Your task to perform on an android device: Open Amazon Image 0: 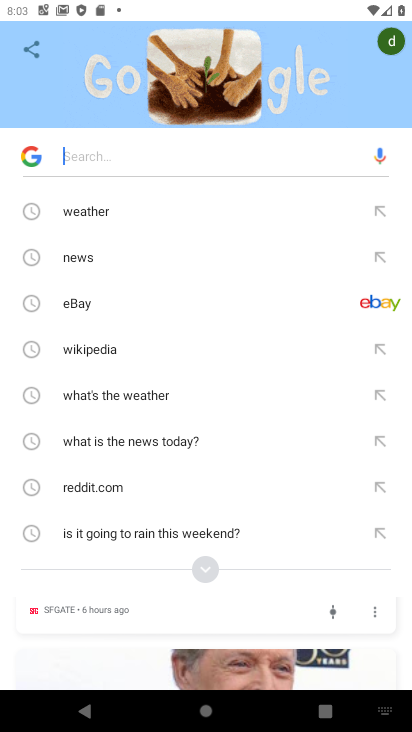
Step 0: press home button
Your task to perform on an android device: Open Amazon Image 1: 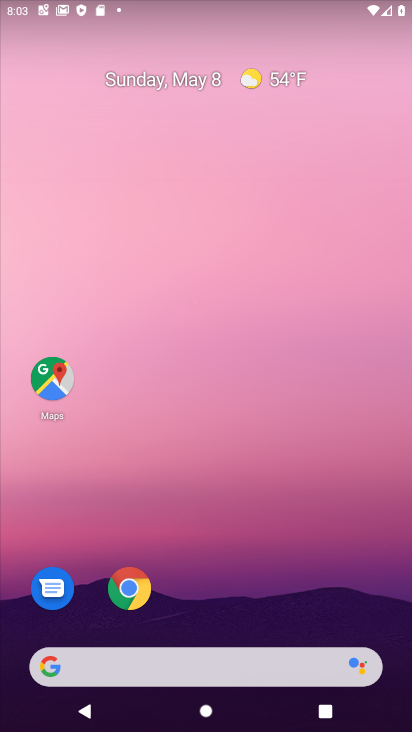
Step 1: click (125, 594)
Your task to perform on an android device: Open Amazon Image 2: 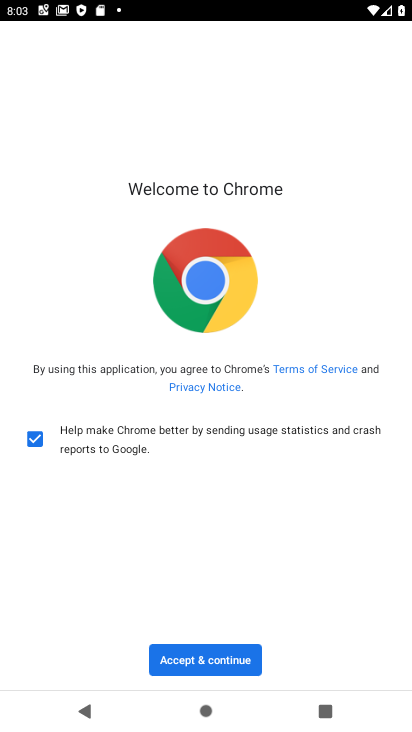
Step 2: click (190, 652)
Your task to perform on an android device: Open Amazon Image 3: 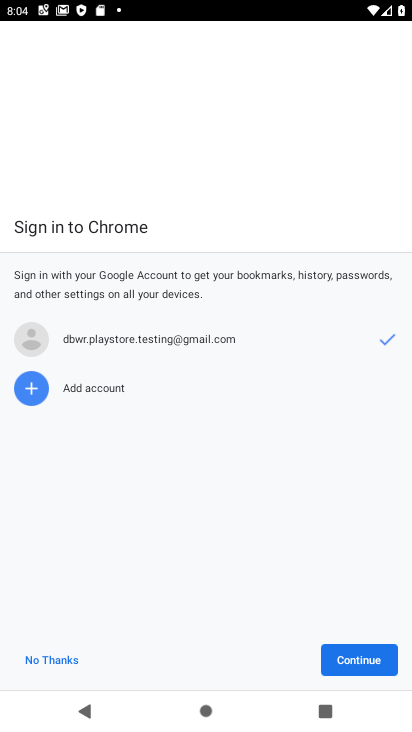
Step 3: click (346, 663)
Your task to perform on an android device: Open Amazon Image 4: 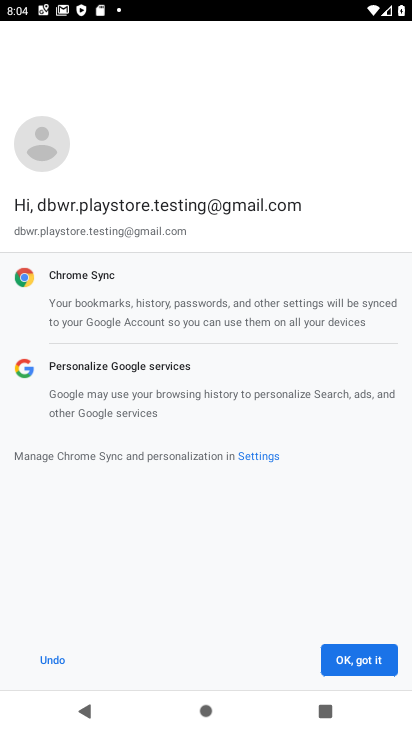
Step 4: click (346, 662)
Your task to perform on an android device: Open Amazon Image 5: 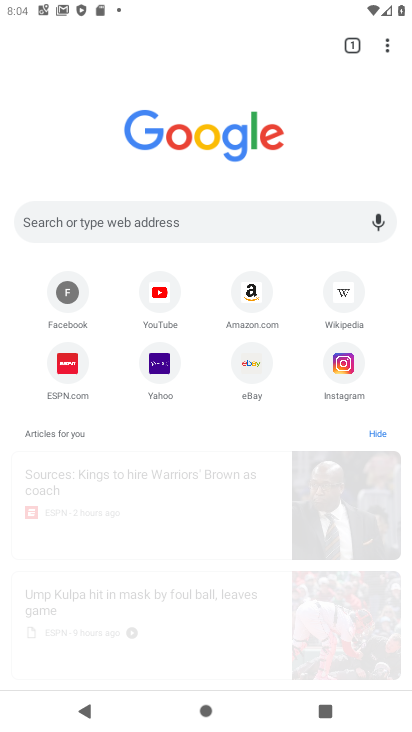
Step 5: click (251, 294)
Your task to perform on an android device: Open Amazon Image 6: 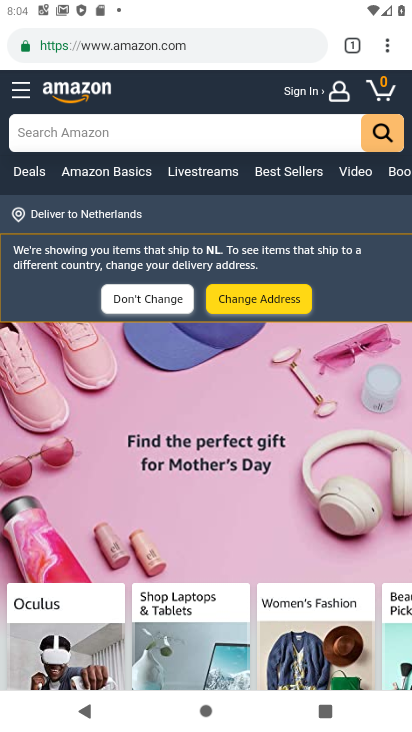
Step 6: task complete